Your task to perform on an android device: check battery use Image 0: 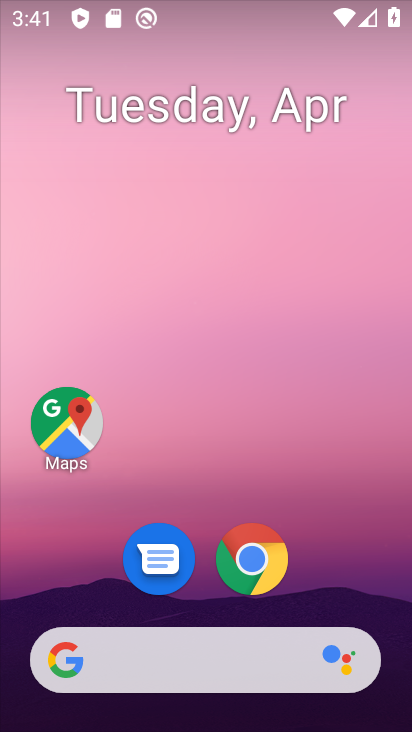
Step 0: drag from (343, 101) to (331, 24)
Your task to perform on an android device: check battery use Image 1: 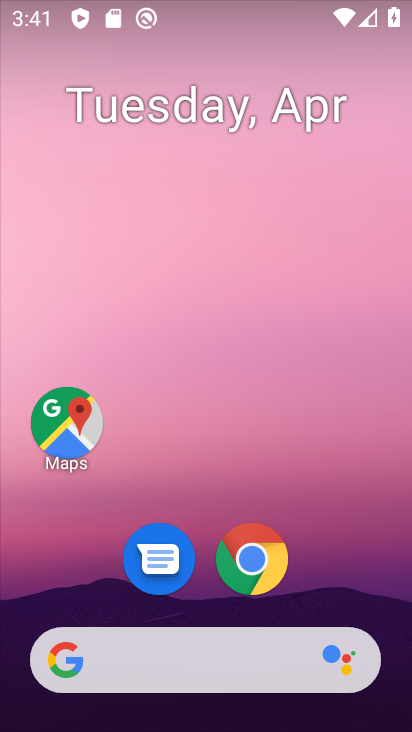
Step 1: drag from (361, 561) to (316, 3)
Your task to perform on an android device: check battery use Image 2: 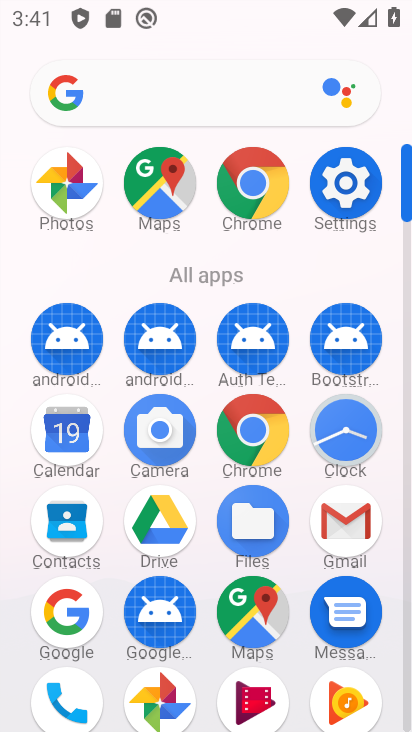
Step 2: click (332, 230)
Your task to perform on an android device: check battery use Image 3: 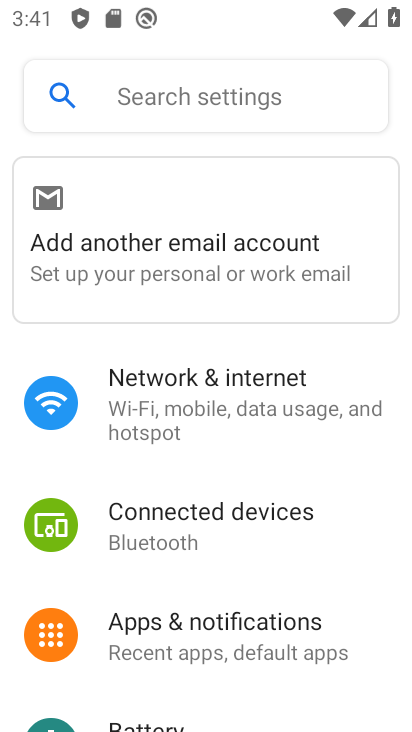
Step 3: drag from (366, 674) to (360, 316)
Your task to perform on an android device: check battery use Image 4: 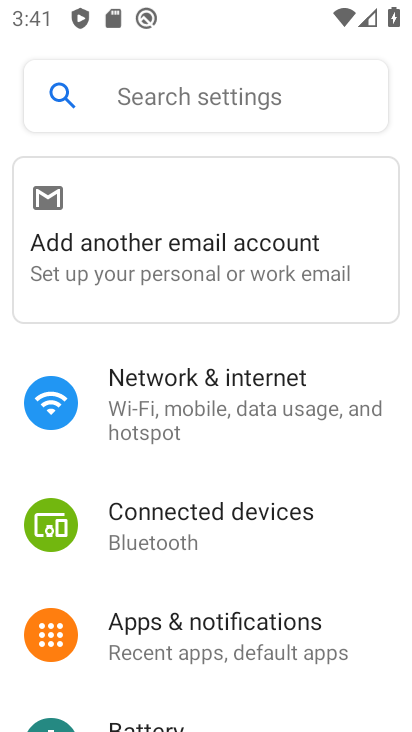
Step 4: drag from (375, 610) to (365, 111)
Your task to perform on an android device: check battery use Image 5: 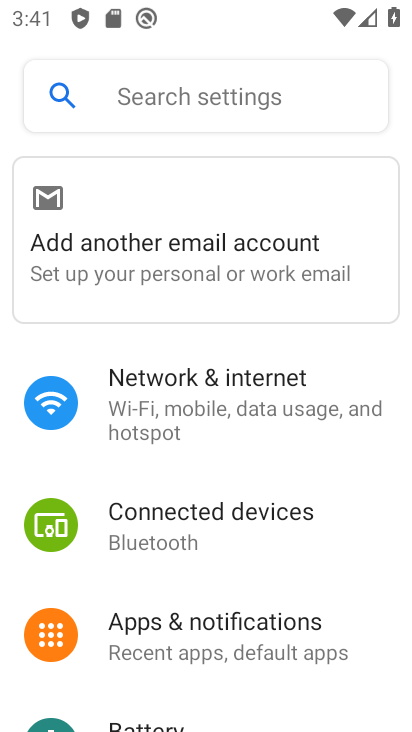
Step 5: drag from (389, 434) to (364, 147)
Your task to perform on an android device: check battery use Image 6: 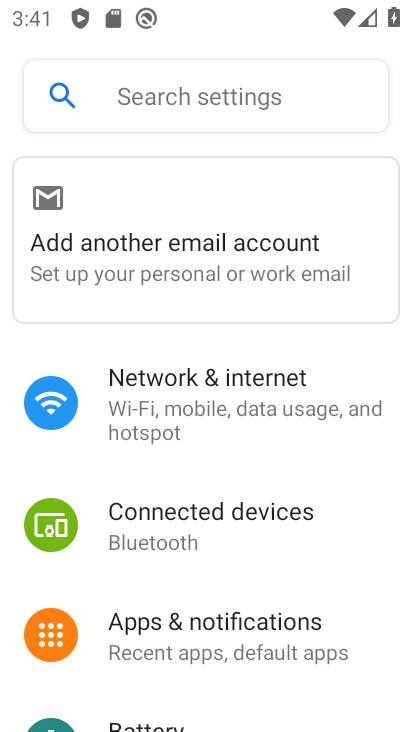
Step 6: drag from (411, 158) to (410, 105)
Your task to perform on an android device: check battery use Image 7: 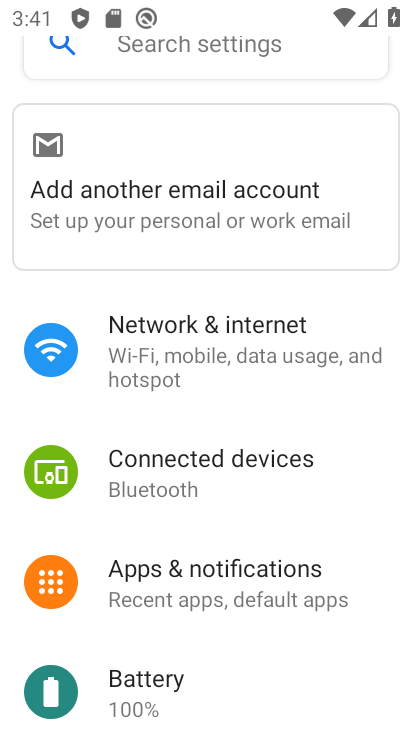
Step 7: drag from (405, 476) to (395, 330)
Your task to perform on an android device: check battery use Image 8: 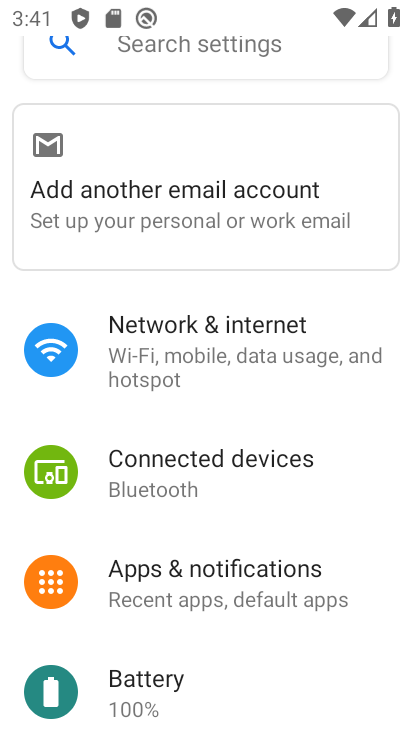
Step 8: drag from (410, 552) to (396, 319)
Your task to perform on an android device: check battery use Image 9: 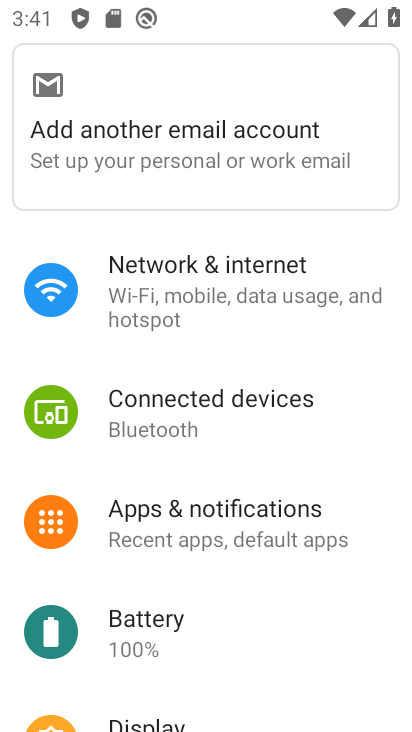
Step 9: click (116, 623)
Your task to perform on an android device: check battery use Image 10: 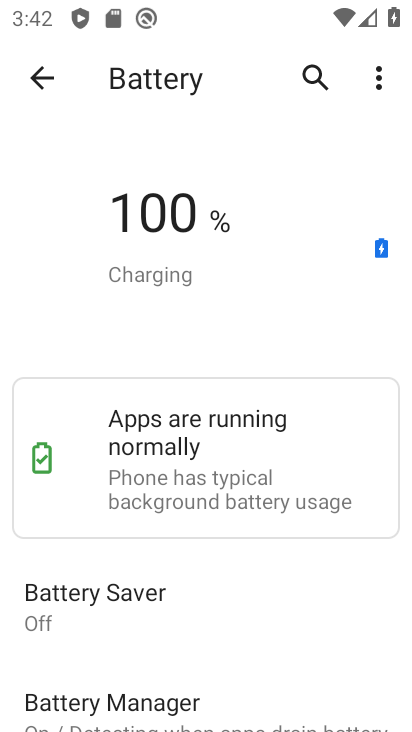
Step 10: click (377, 70)
Your task to perform on an android device: check battery use Image 11: 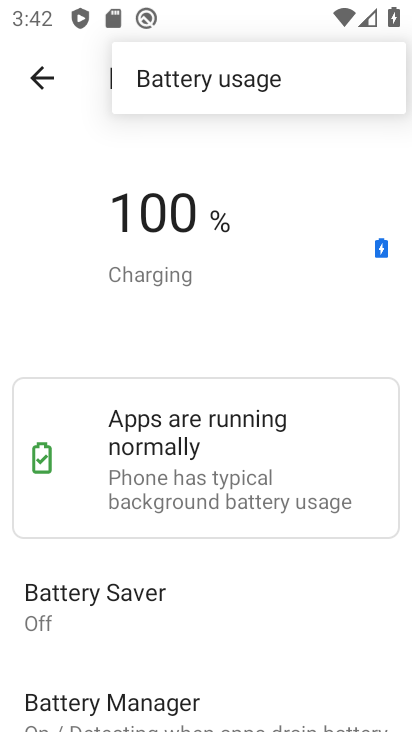
Step 11: click (258, 76)
Your task to perform on an android device: check battery use Image 12: 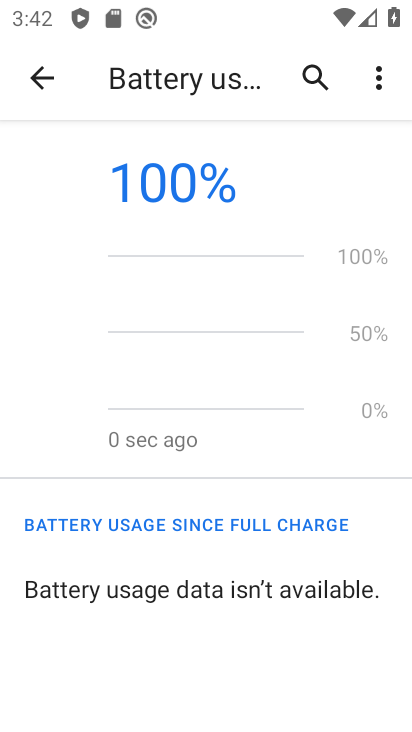
Step 12: task complete